Your task to perform on an android device: change the clock style Image 0: 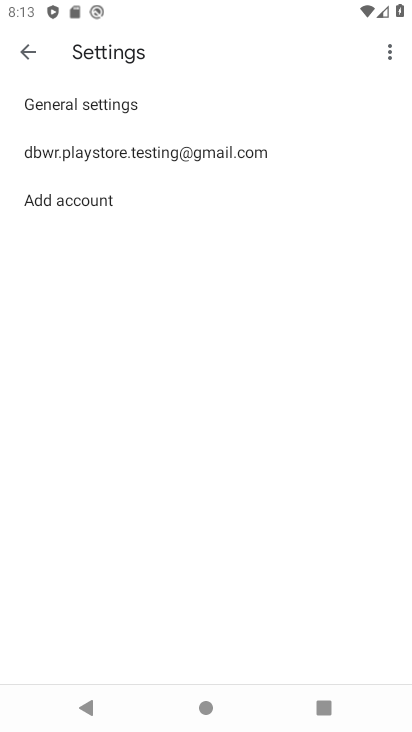
Step 0: press home button
Your task to perform on an android device: change the clock style Image 1: 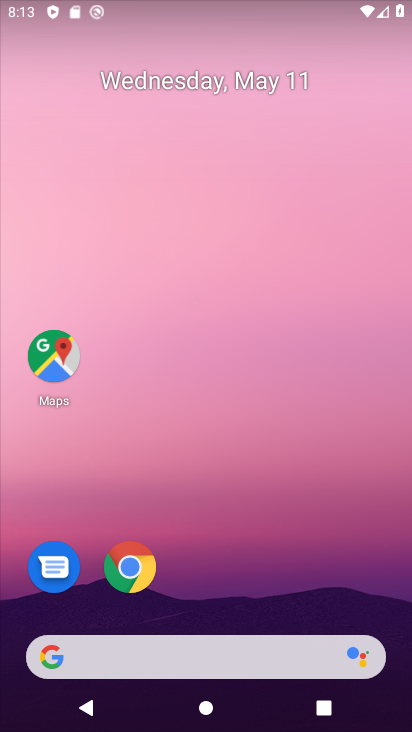
Step 1: drag from (245, 624) to (269, 43)
Your task to perform on an android device: change the clock style Image 2: 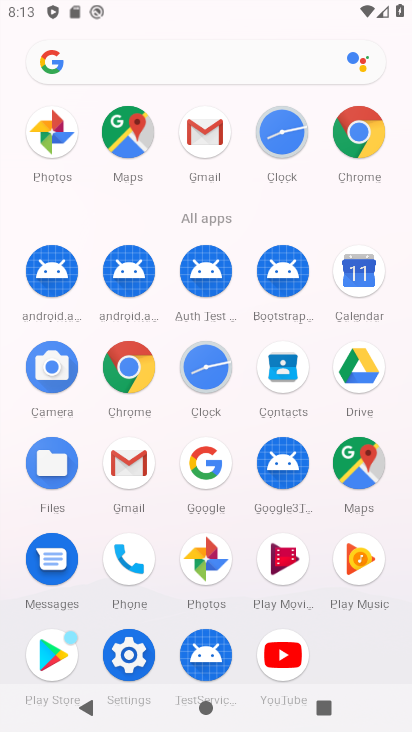
Step 2: click (200, 384)
Your task to perform on an android device: change the clock style Image 3: 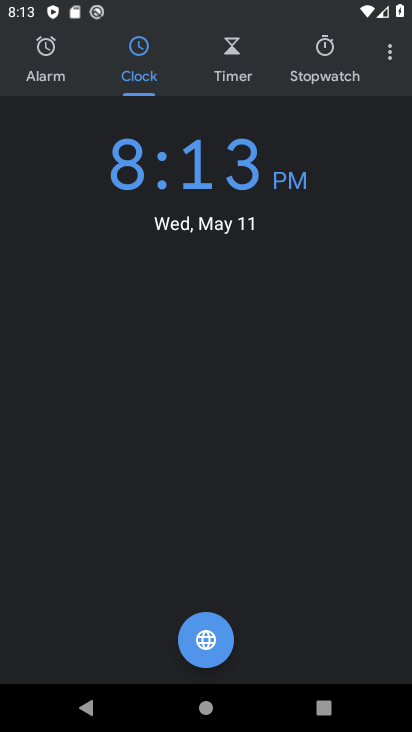
Step 3: click (389, 45)
Your task to perform on an android device: change the clock style Image 4: 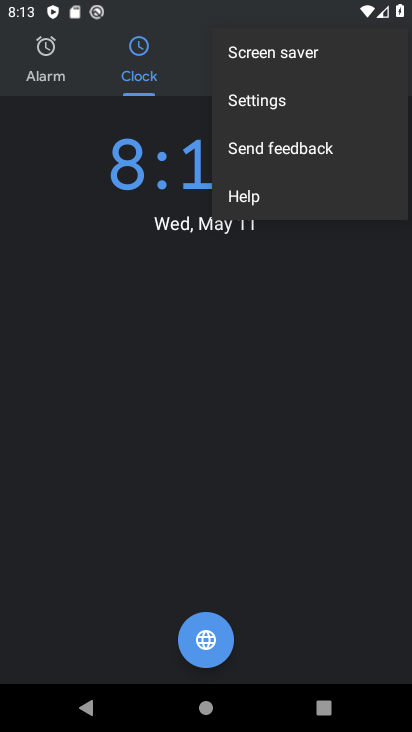
Step 4: click (286, 108)
Your task to perform on an android device: change the clock style Image 5: 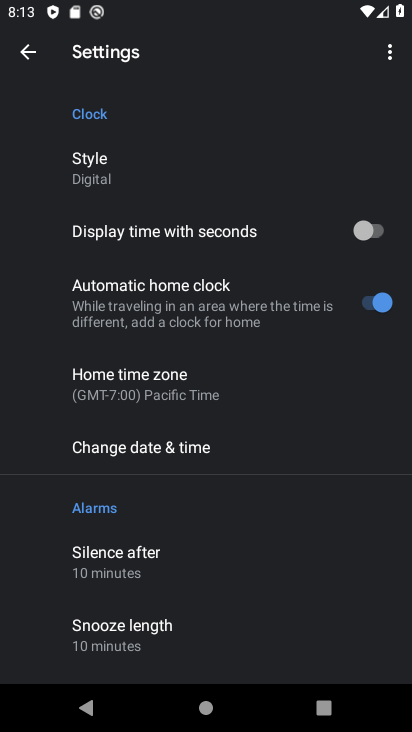
Step 5: click (132, 176)
Your task to perform on an android device: change the clock style Image 6: 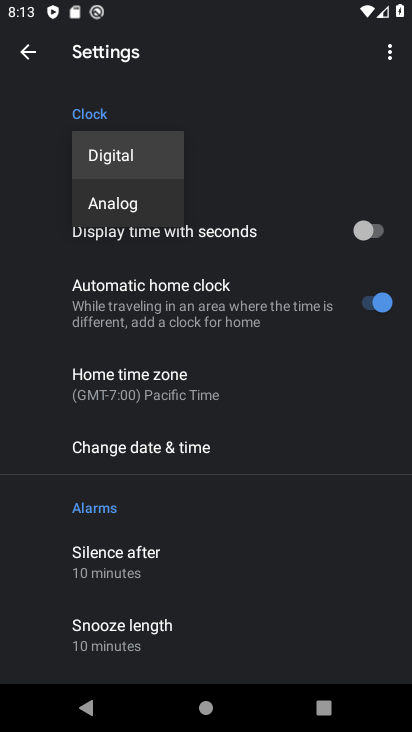
Step 6: click (131, 193)
Your task to perform on an android device: change the clock style Image 7: 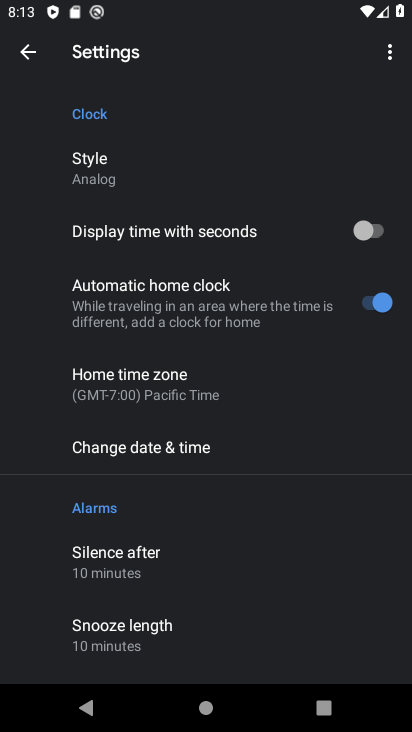
Step 7: task complete